Your task to perform on an android device: Open privacy settings Image 0: 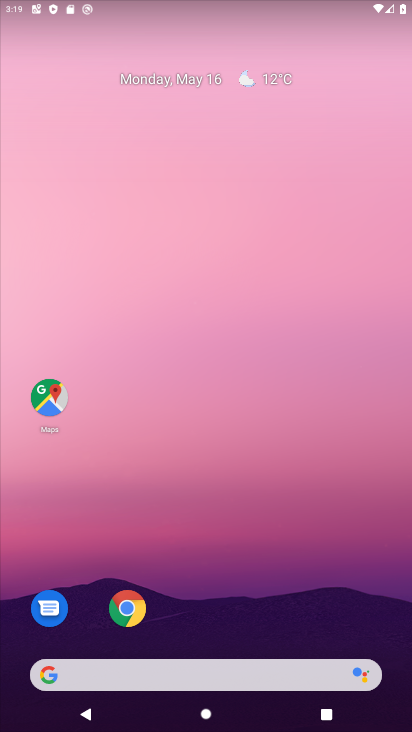
Step 0: drag from (153, 629) to (163, 219)
Your task to perform on an android device: Open privacy settings Image 1: 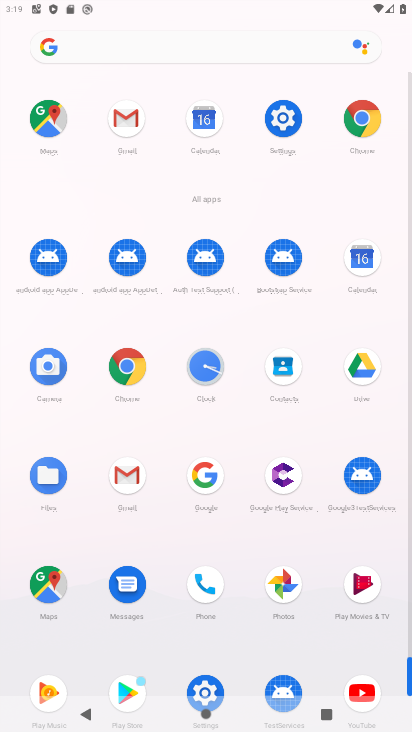
Step 1: click (209, 683)
Your task to perform on an android device: Open privacy settings Image 2: 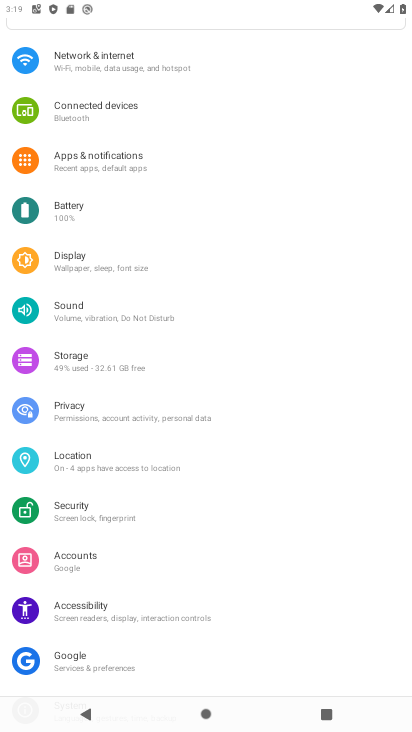
Step 2: drag from (198, 154) to (283, 541)
Your task to perform on an android device: Open privacy settings Image 3: 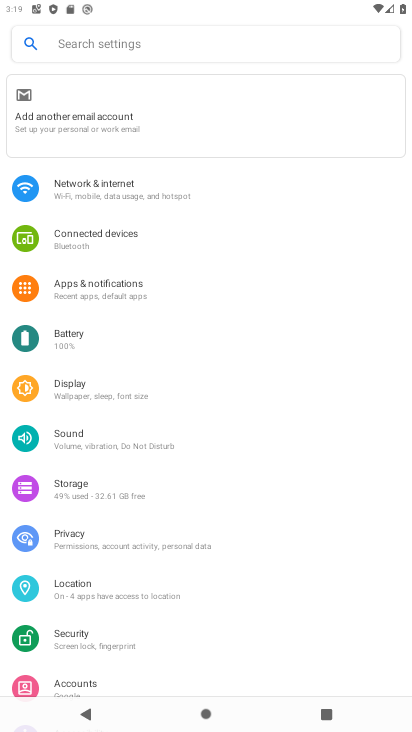
Step 3: click (112, 542)
Your task to perform on an android device: Open privacy settings Image 4: 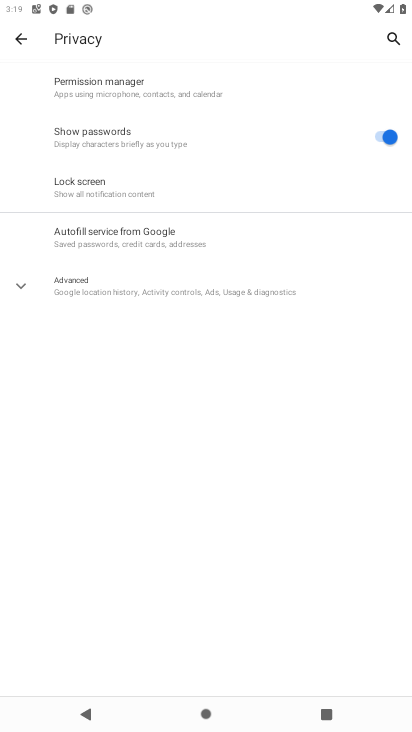
Step 4: task complete